Your task to perform on an android device: turn off javascript in the chrome app Image 0: 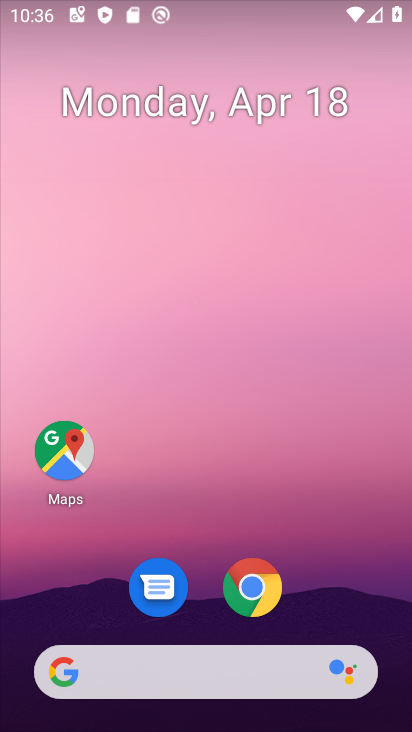
Step 0: drag from (368, 607) to (337, 99)
Your task to perform on an android device: turn off javascript in the chrome app Image 1: 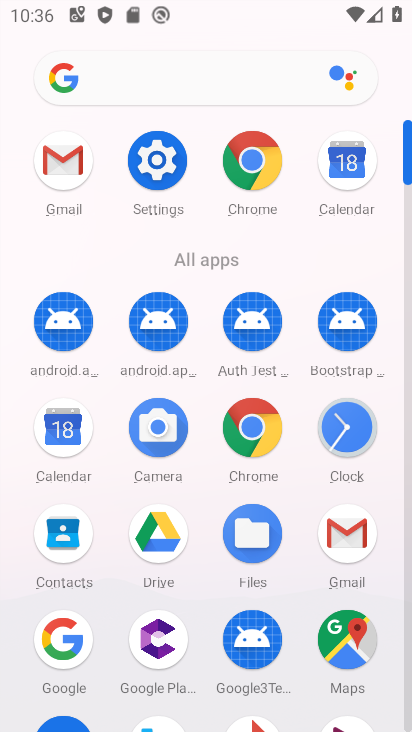
Step 1: click (245, 425)
Your task to perform on an android device: turn off javascript in the chrome app Image 2: 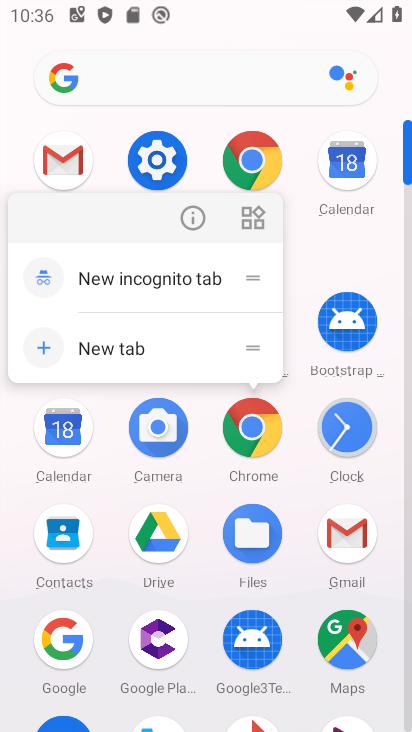
Step 2: click (245, 425)
Your task to perform on an android device: turn off javascript in the chrome app Image 3: 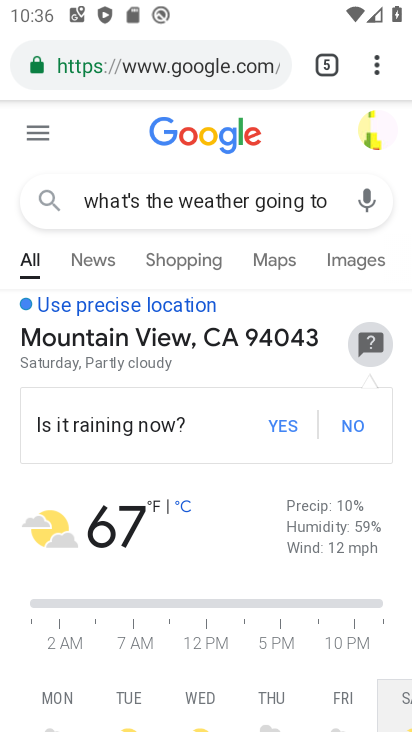
Step 3: click (372, 66)
Your task to perform on an android device: turn off javascript in the chrome app Image 4: 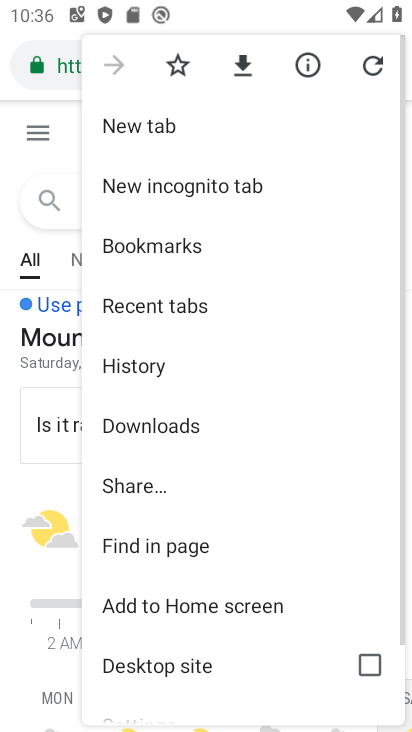
Step 4: drag from (243, 526) to (301, 213)
Your task to perform on an android device: turn off javascript in the chrome app Image 5: 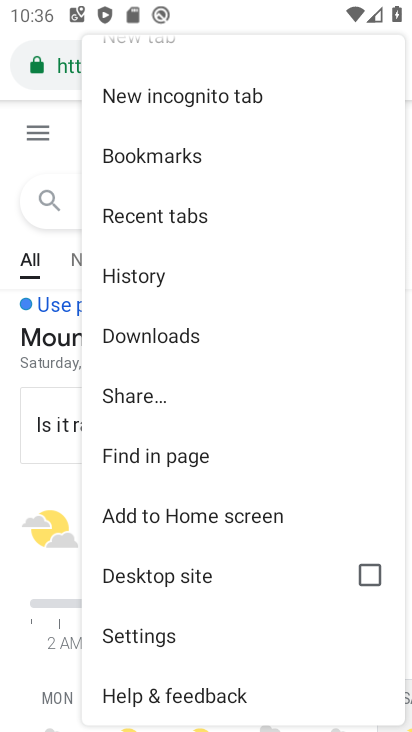
Step 5: click (154, 637)
Your task to perform on an android device: turn off javascript in the chrome app Image 6: 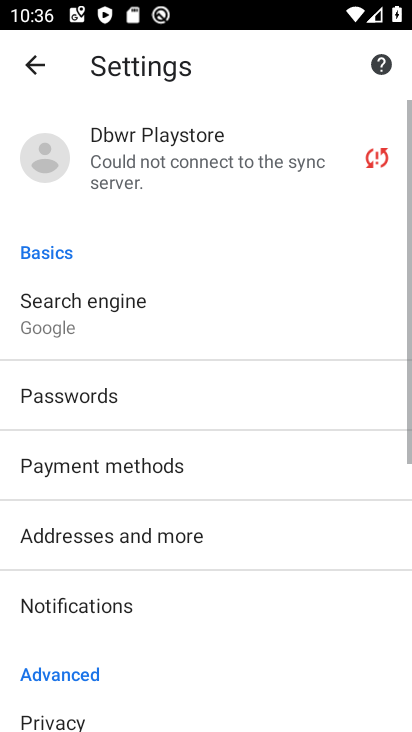
Step 6: drag from (241, 645) to (261, 307)
Your task to perform on an android device: turn off javascript in the chrome app Image 7: 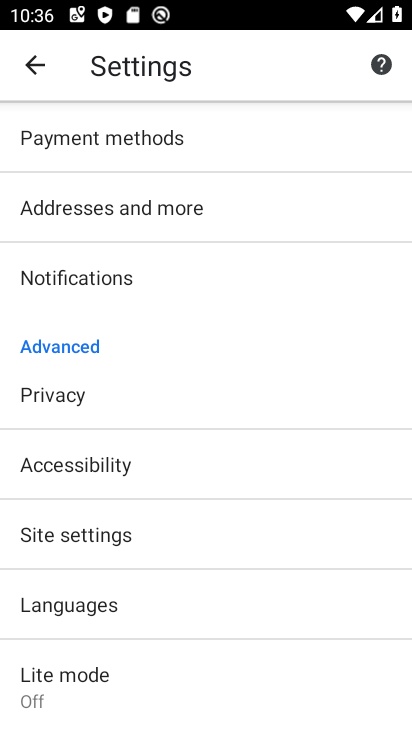
Step 7: drag from (239, 641) to (260, 409)
Your task to perform on an android device: turn off javascript in the chrome app Image 8: 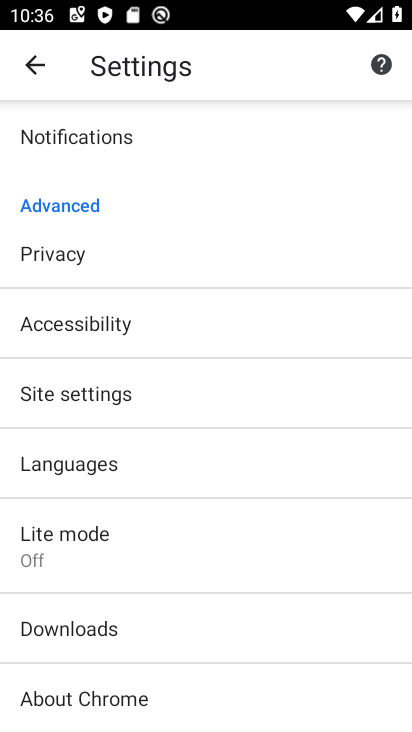
Step 8: click (137, 402)
Your task to perform on an android device: turn off javascript in the chrome app Image 9: 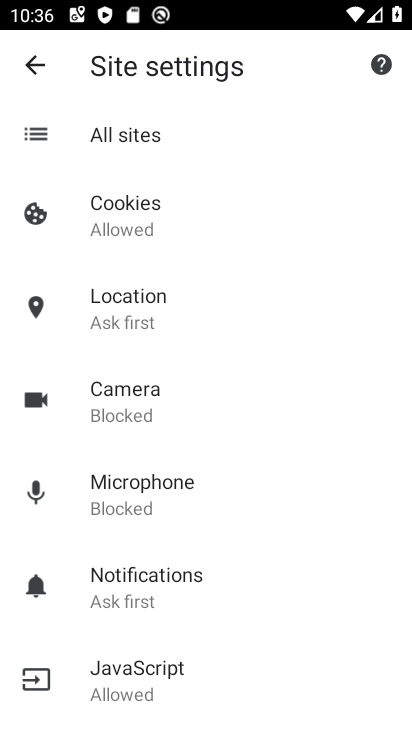
Step 9: click (171, 676)
Your task to perform on an android device: turn off javascript in the chrome app Image 10: 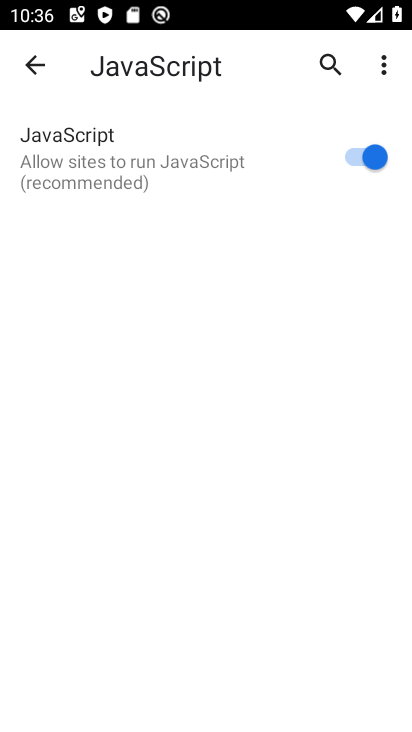
Step 10: click (360, 155)
Your task to perform on an android device: turn off javascript in the chrome app Image 11: 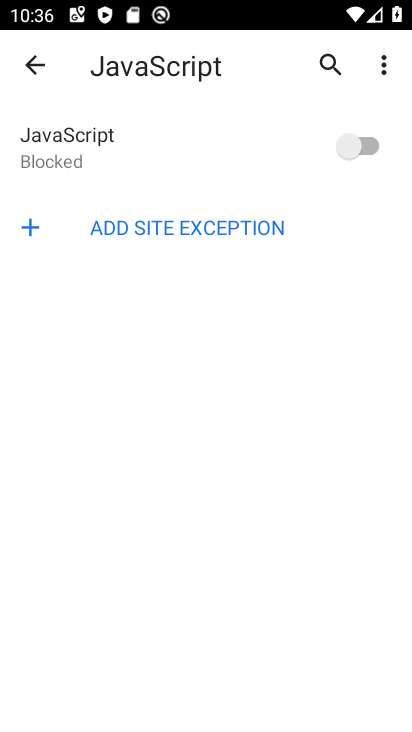
Step 11: task complete